Your task to perform on an android device: see tabs open on other devices in the chrome app Image 0: 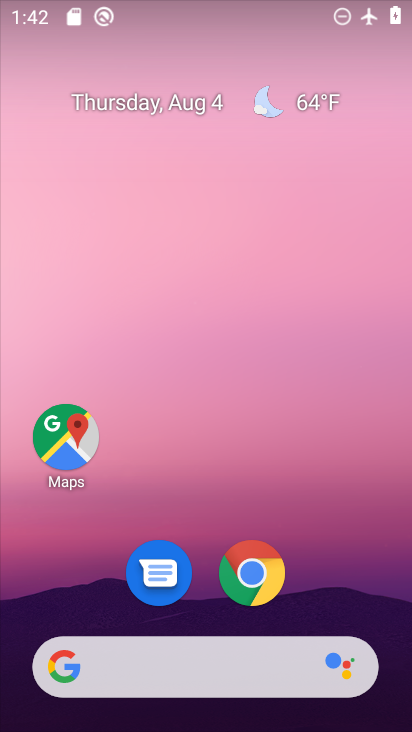
Step 0: drag from (363, 526) to (279, 99)
Your task to perform on an android device: see tabs open on other devices in the chrome app Image 1: 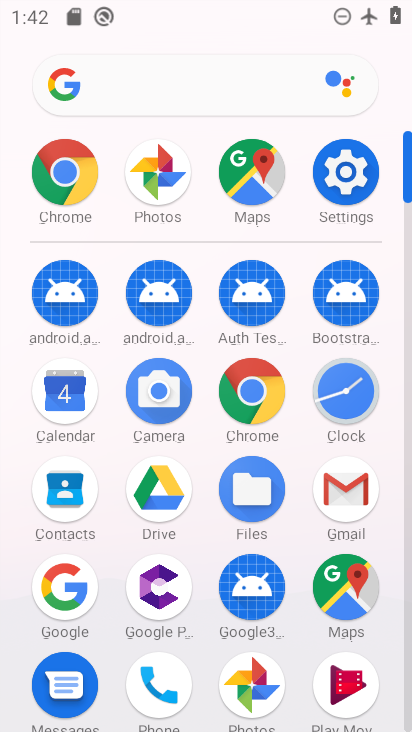
Step 1: click (259, 386)
Your task to perform on an android device: see tabs open on other devices in the chrome app Image 2: 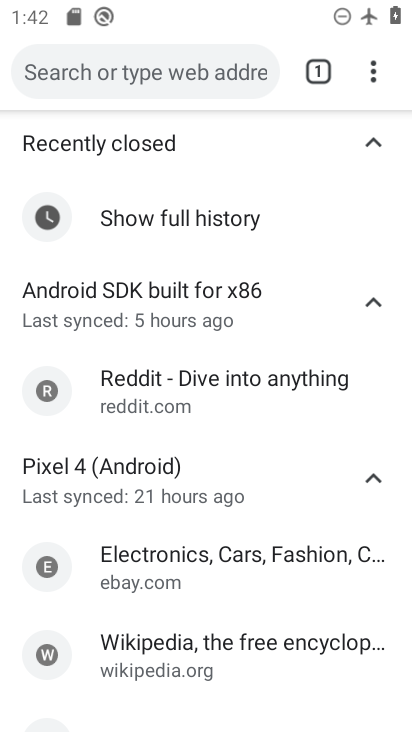
Step 2: task complete